Your task to perform on an android device: What is the recent news? Image 0: 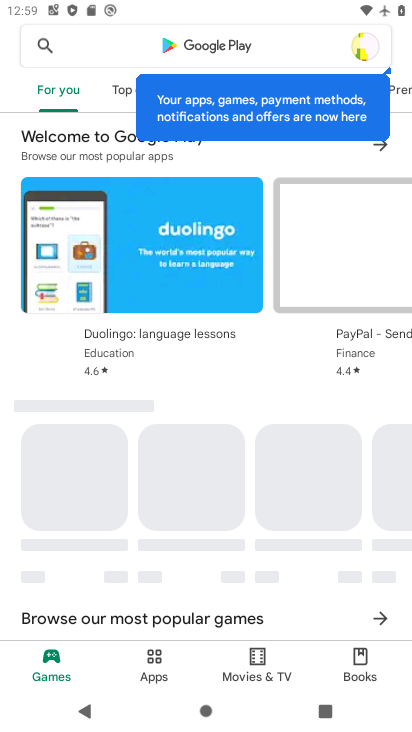
Step 0: press home button
Your task to perform on an android device: What is the recent news? Image 1: 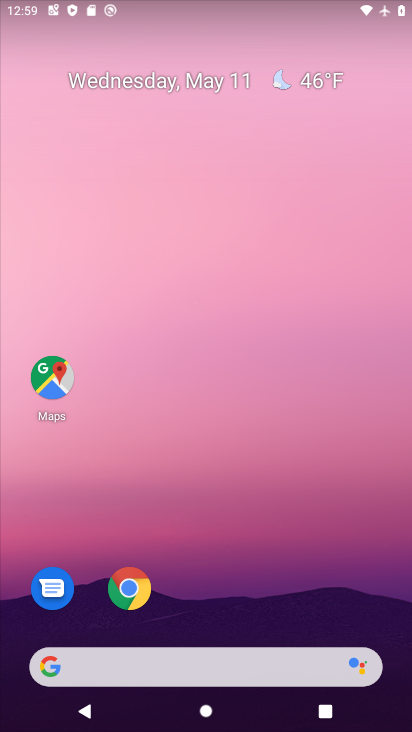
Step 1: click (123, 603)
Your task to perform on an android device: What is the recent news? Image 2: 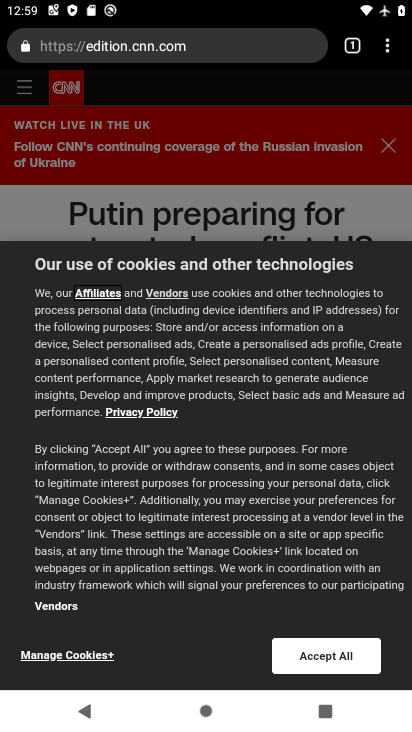
Step 2: click (166, 40)
Your task to perform on an android device: What is the recent news? Image 3: 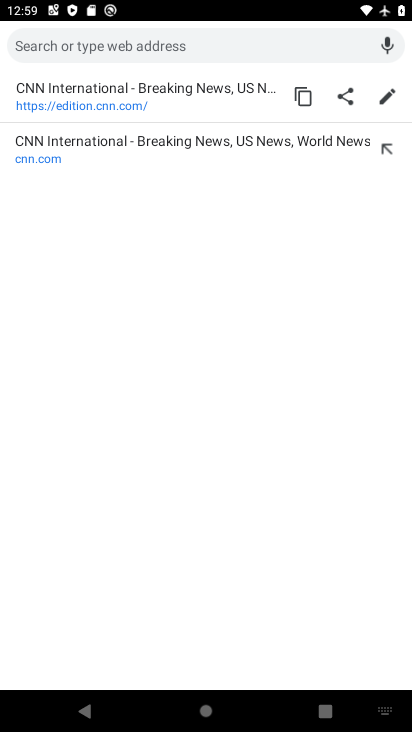
Step 3: type "recent view"
Your task to perform on an android device: What is the recent news? Image 4: 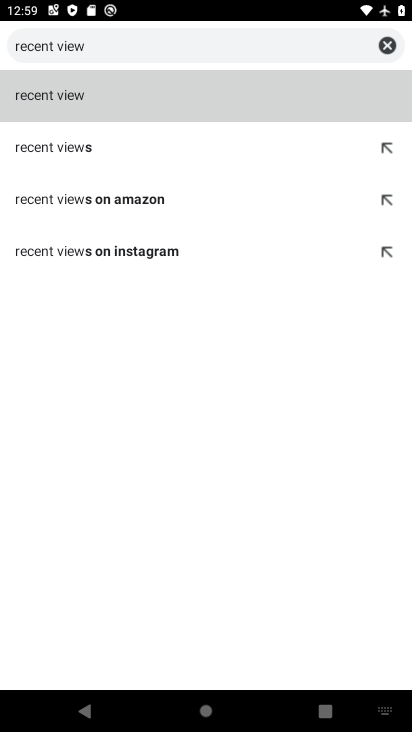
Step 4: click (388, 49)
Your task to perform on an android device: What is the recent news? Image 5: 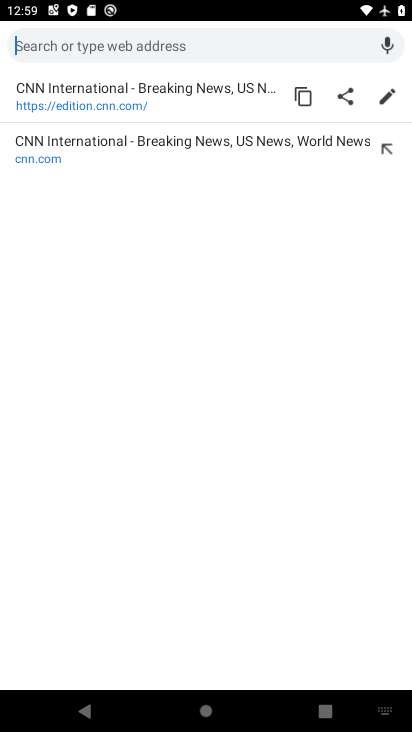
Step 5: type "recent news"
Your task to perform on an android device: What is the recent news? Image 6: 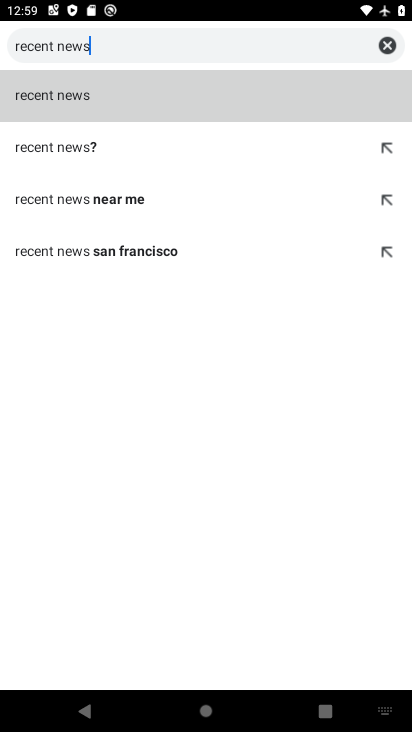
Step 6: click (90, 103)
Your task to perform on an android device: What is the recent news? Image 7: 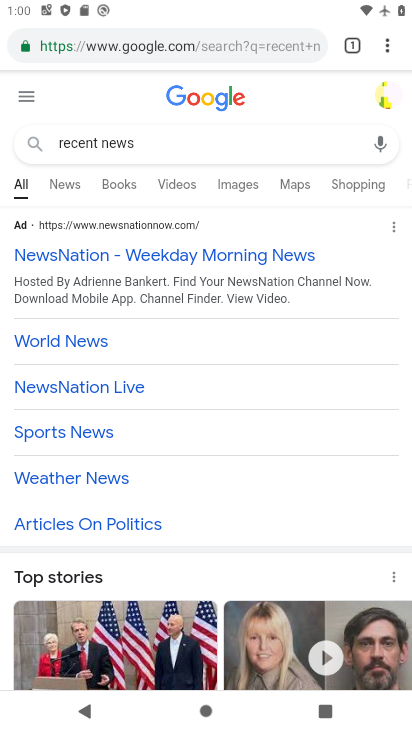
Step 7: task complete